Your task to perform on an android device: show emergency info Image 0: 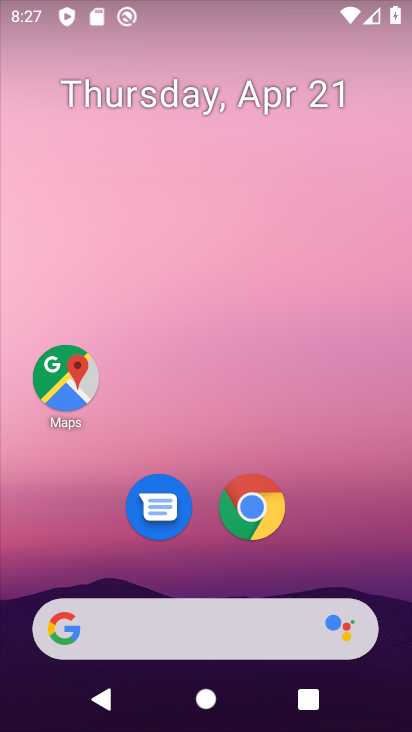
Step 0: drag from (366, 530) to (365, 178)
Your task to perform on an android device: show emergency info Image 1: 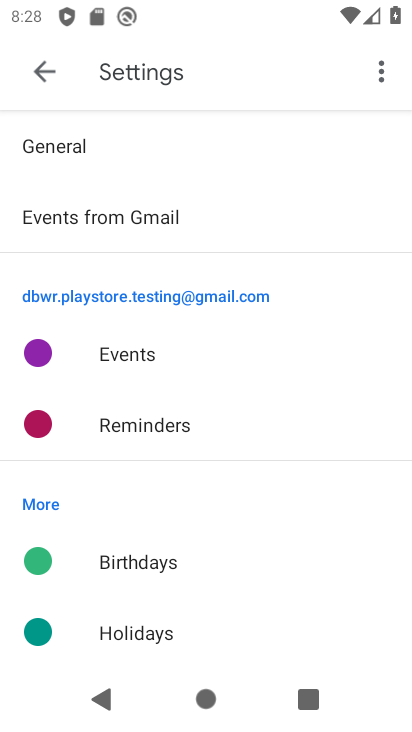
Step 1: press home button
Your task to perform on an android device: show emergency info Image 2: 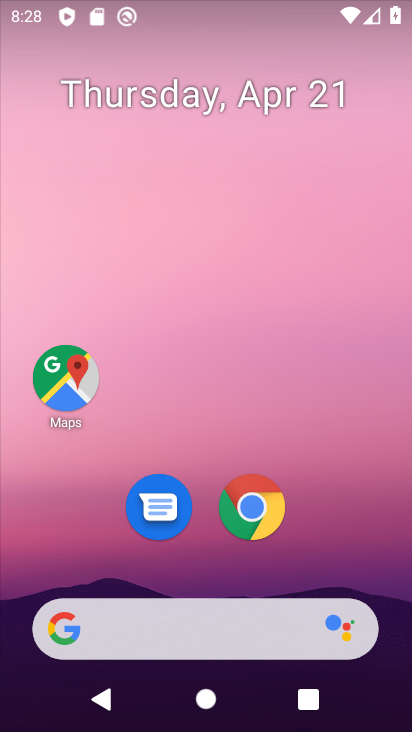
Step 2: drag from (356, 471) to (380, 180)
Your task to perform on an android device: show emergency info Image 3: 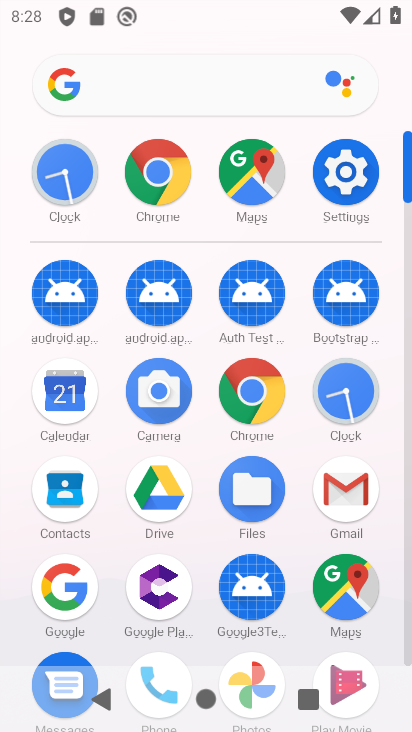
Step 3: click (377, 176)
Your task to perform on an android device: show emergency info Image 4: 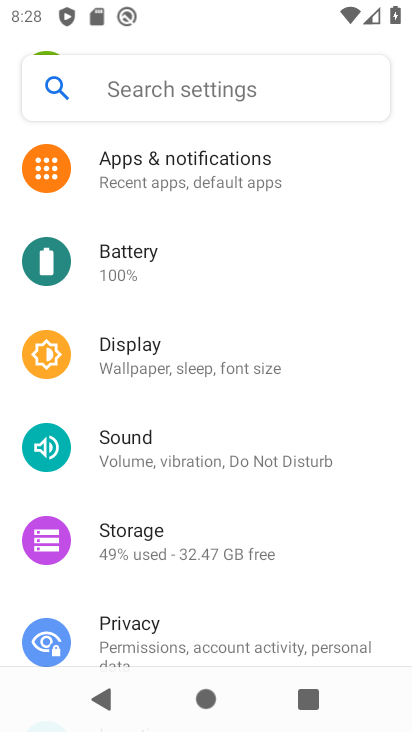
Step 4: drag from (249, 589) to (291, 265)
Your task to perform on an android device: show emergency info Image 5: 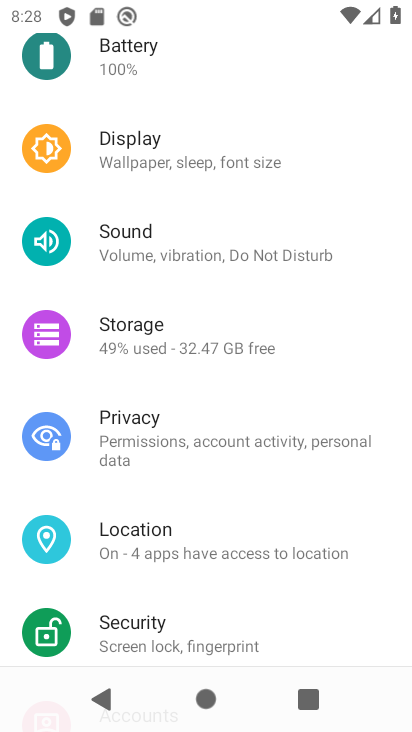
Step 5: drag from (266, 563) to (250, 195)
Your task to perform on an android device: show emergency info Image 6: 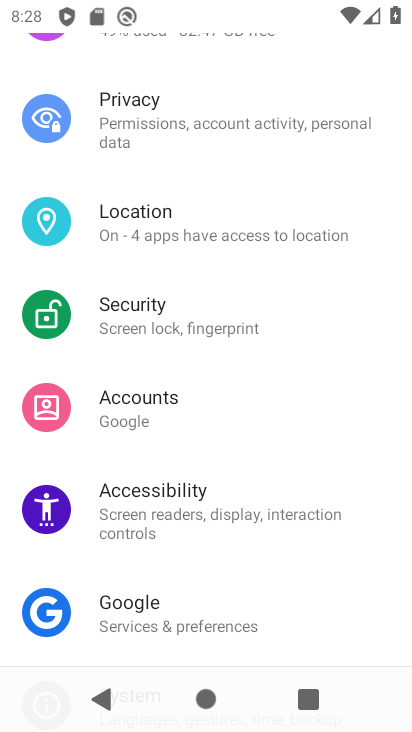
Step 6: drag from (256, 586) to (327, 186)
Your task to perform on an android device: show emergency info Image 7: 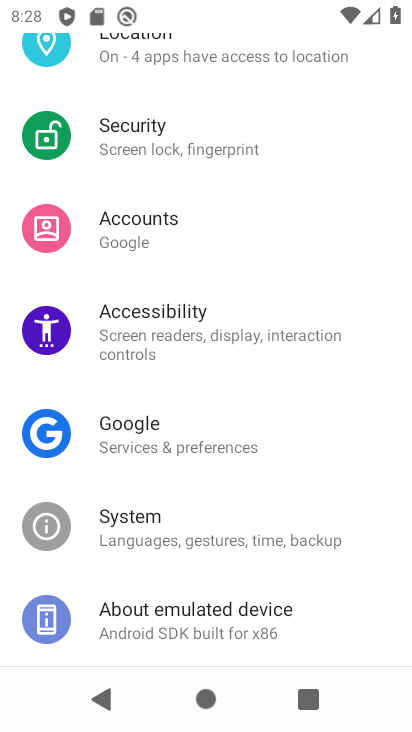
Step 7: drag from (260, 571) to (352, 279)
Your task to perform on an android device: show emergency info Image 8: 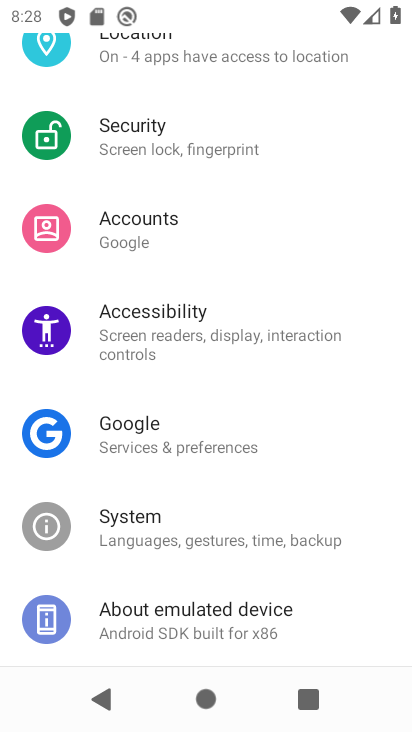
Step 8: click (277, 624)
Your task to perform on an android device: show emergency info Image 9: 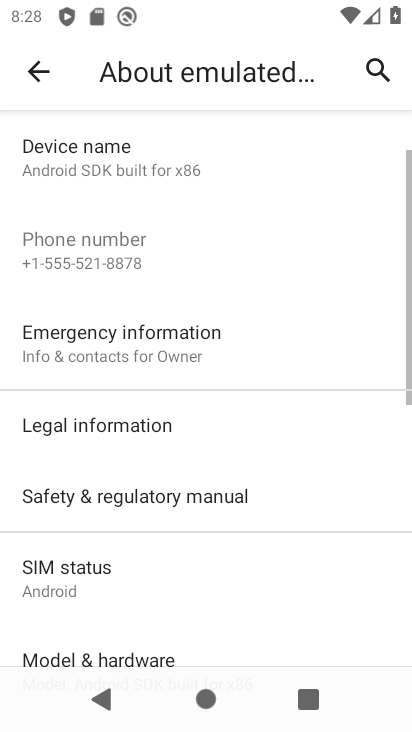
Step 9: click (225, 351)
Your task to perform on an android device: show emergency info Image 10: 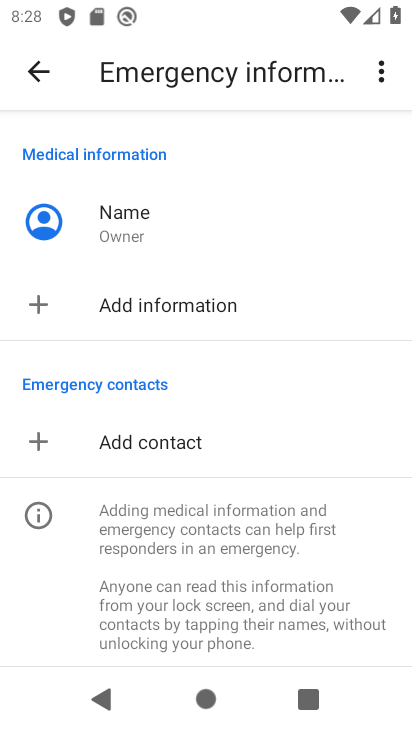
Step 10: task complete